Your task to perform on an android device: What's on my calendar tomorrow? Image 0: 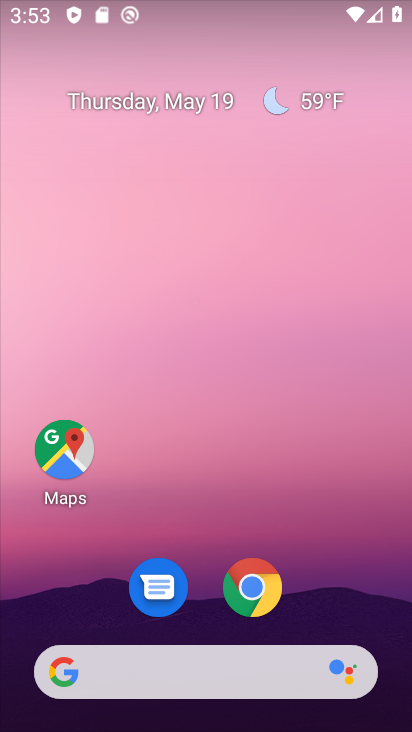
Step 0: press home button
Your task to perform on an android device: What's on my calendar tomorrow? Image 1: 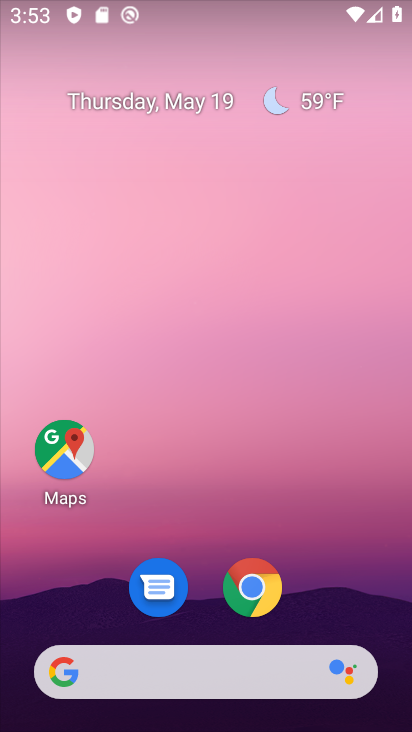
Step 1: drag from (142, 647) to (141, 213)
Your task to perform on an android device: What's on my calendar tomorrow? Image 2: 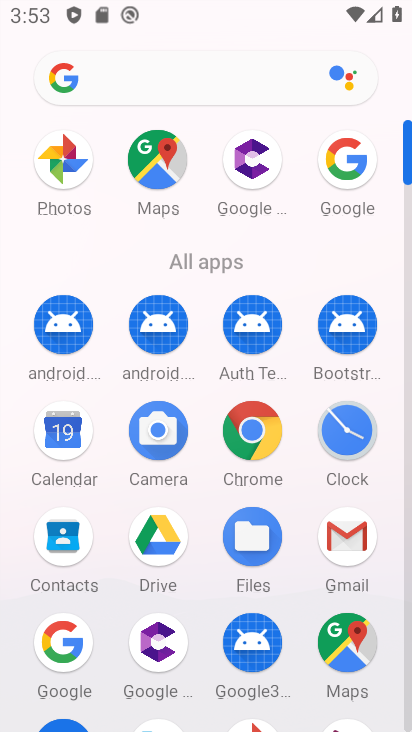
Step 2: click (67, 441)
Your task to perform on an android device: What's on my calendar tomorrow? Image 3: 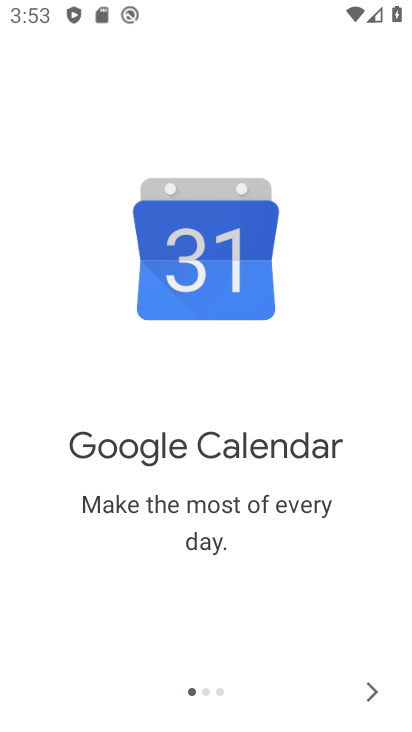
Step 3: click (364, 686)
Your task to perform on an android device: What's on my calendar tomorrow? Image 4: 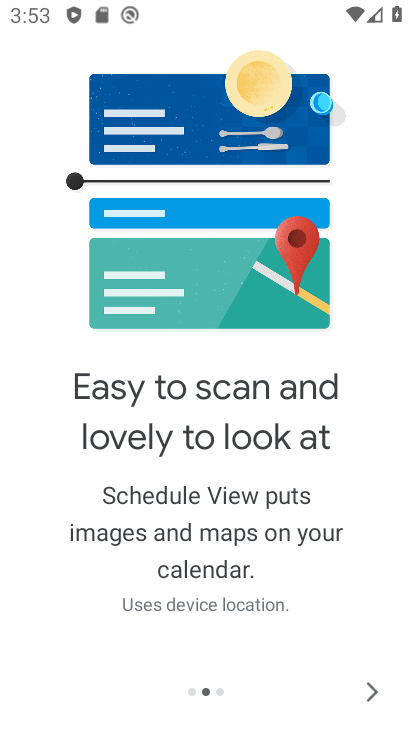
Step 4: click (372, 688)
Your task to perform on an android device: What's on my calendar tomorrow? Image 5: 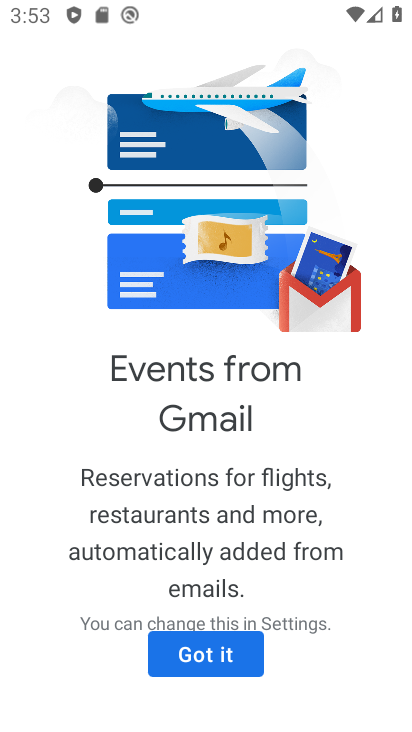
Step 5: click (200, 660)
Your task to perform on an android device: What's on my calendar tomorrow? Image 6: 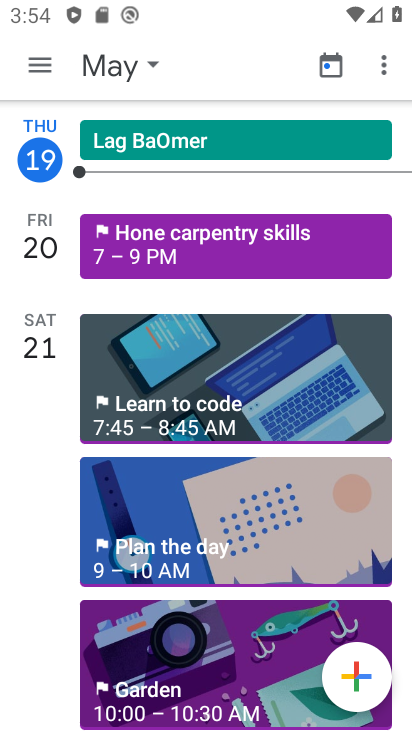
Step 6: click (154, 256)
Your task to perform on an android device: What's on my calendar tomorrow? Image 7: 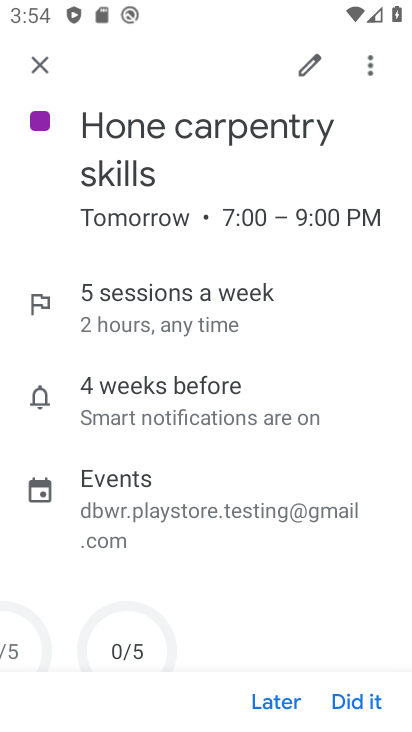
Step 7: task complete